Your task to perform on an android device: Go to sound settings Image 0: 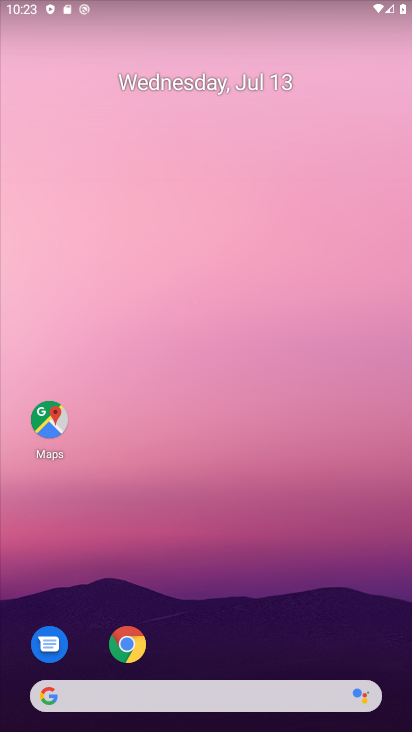
Step 0: drag from (245, 536) to (131, 73)
Your task to perform on an android device: Go to sound settings Image 1: 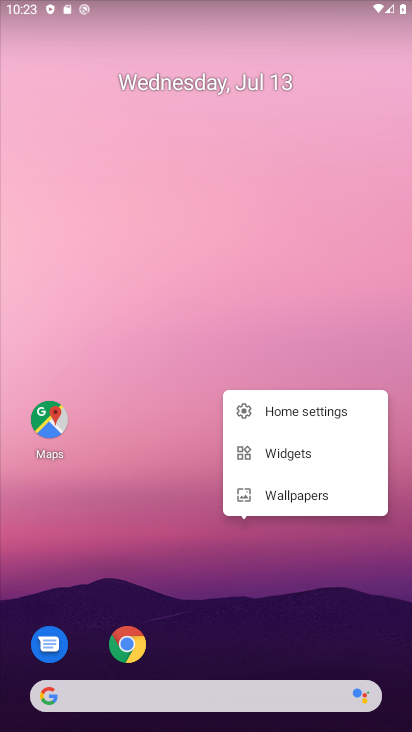
Step 1: click (245, 535)
Your task to perform on an android device: Go to sound settings Image 2: 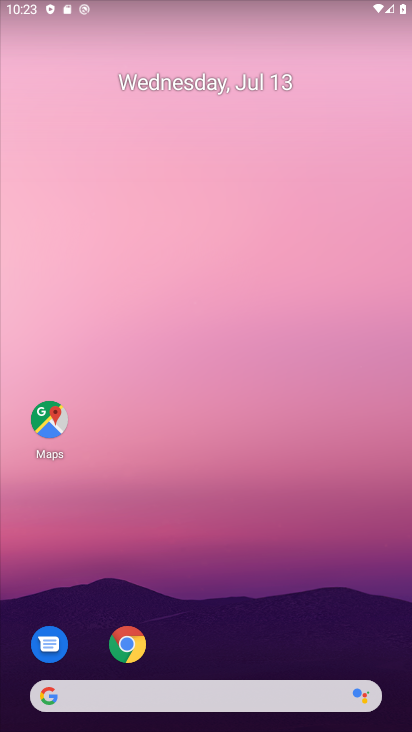
Step 2: drag from (234, 574) to (173, 179)
Your task to perform on an android device: Go to sound settings Image 3: 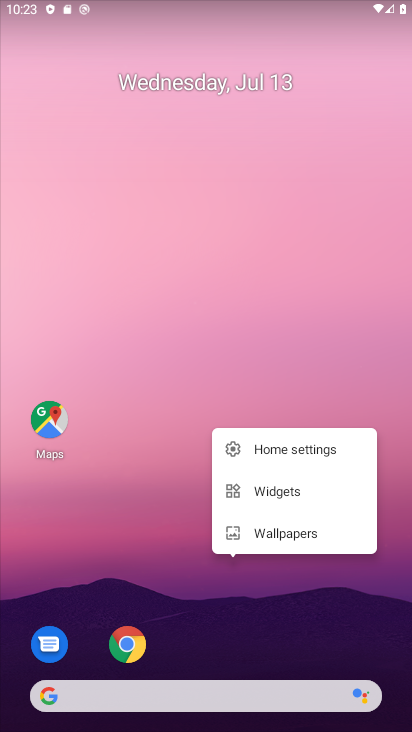
Step 3: click (173, 179)
Your task to perform on an android device: Go to sound settings Image 4: 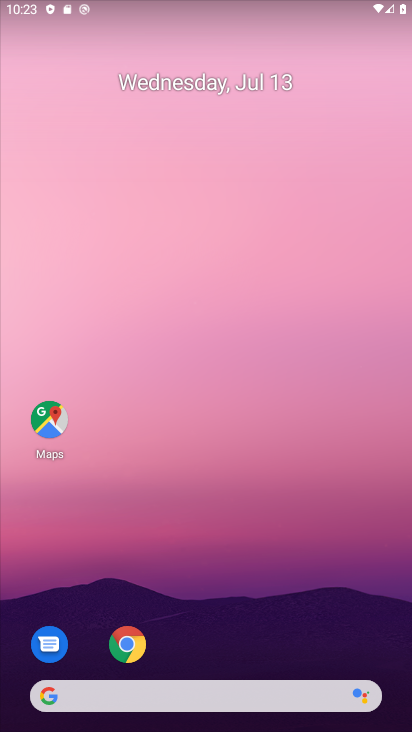
Step 4: drag from (193, 543) to (154, 91)
Your task to perform on an android device: Go to sound settings Image 5: 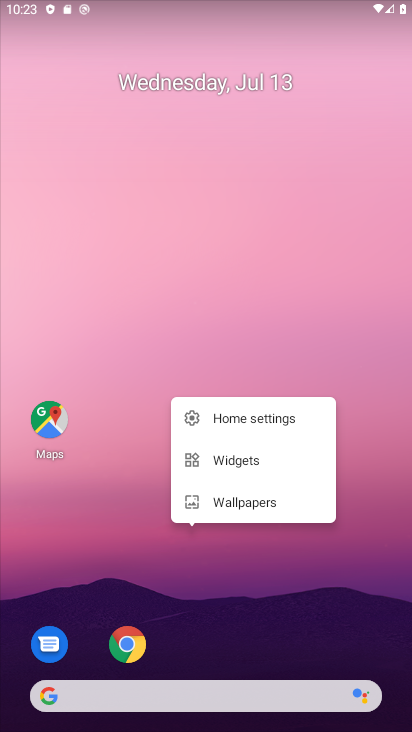
Step 5: click (159, 214)
Your task to perform on an android device: Go to sound settings Image 6: 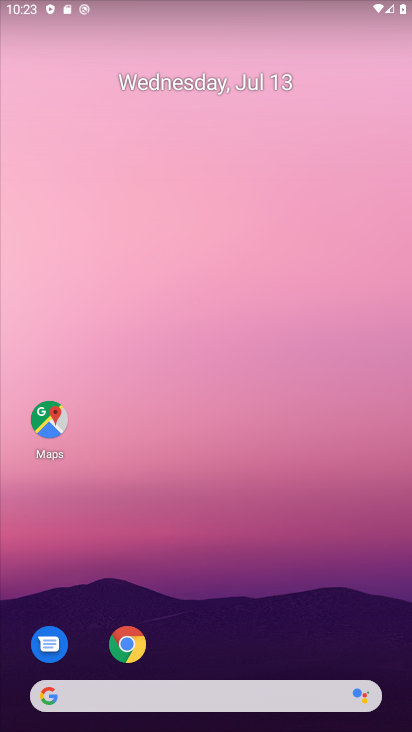
Step 6: drag from (198, 594) to (166, 76)
Your task to perform on an android device: Go to sound settings Image 7: 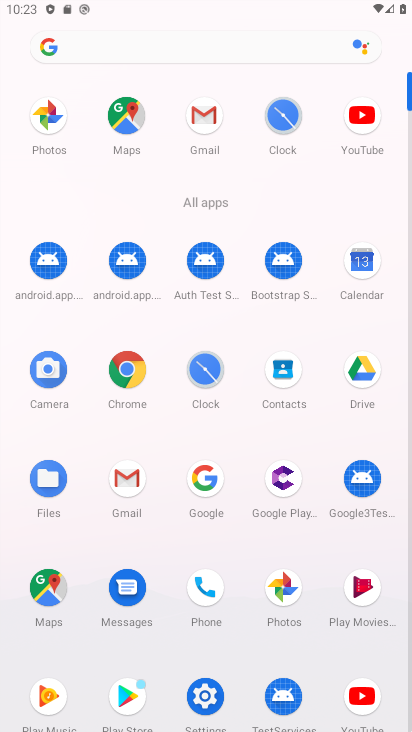
Step 7: click (200, 697)
Your task to perform on an android device: Go to sound settings Image 8: 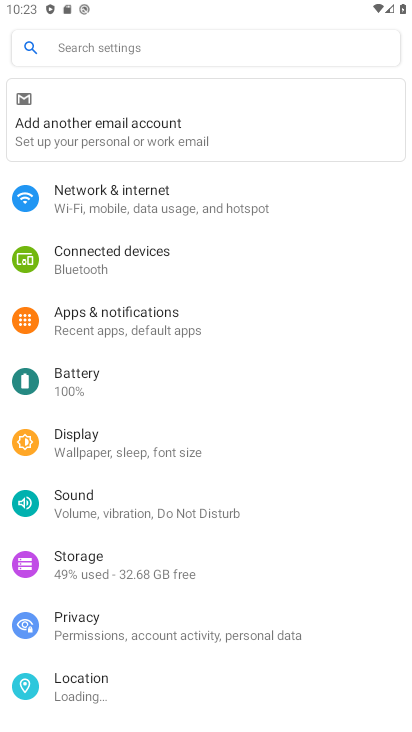
Step 8: click (78, 496)
Your task to perform on an android device: Go to sound settings Image 9: 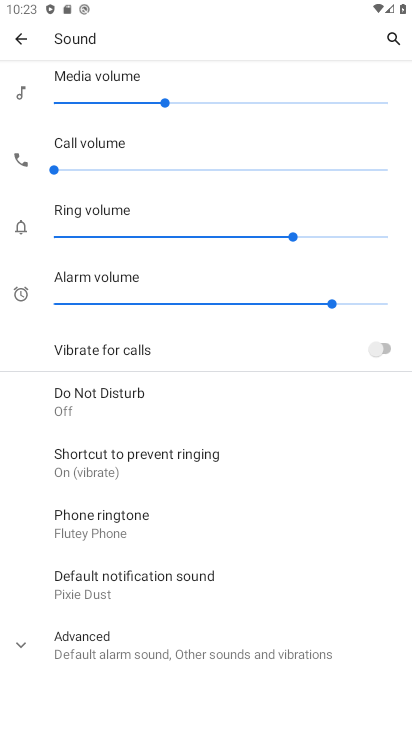
Step 9: task complete